Your task to perform on an android device: Show me popular games on the Play Store Image 0: 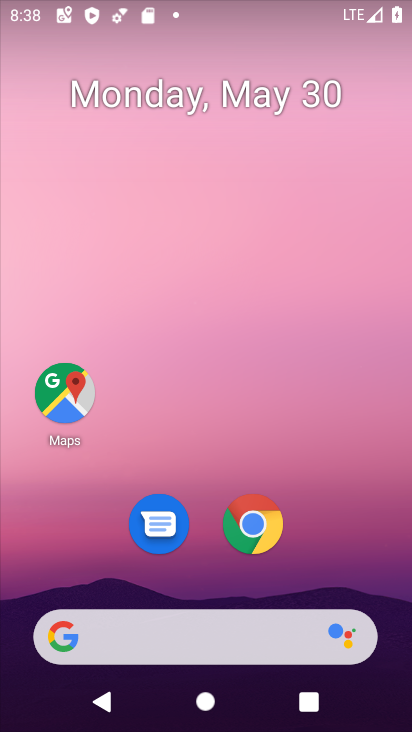
Step 0: drag from (230, 445) to (178, 1)
Your task to perform on an android device: Show me popular games on the Play Store Image 1: 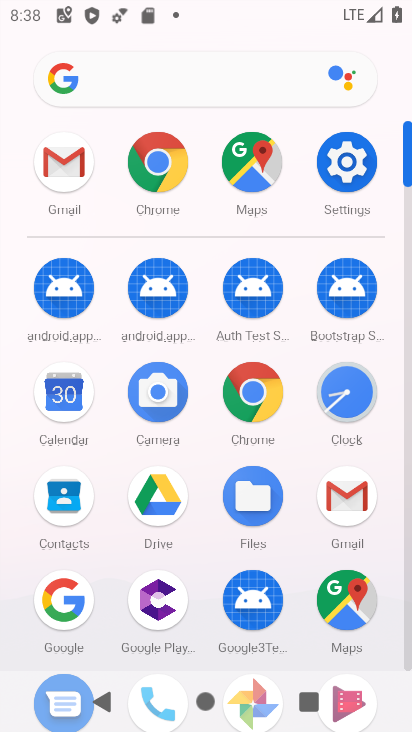
Step 1: drag from (113, 525) to (115, 144)
Your task to perform on an android device: Show me popular games on the Play Store Image 2: 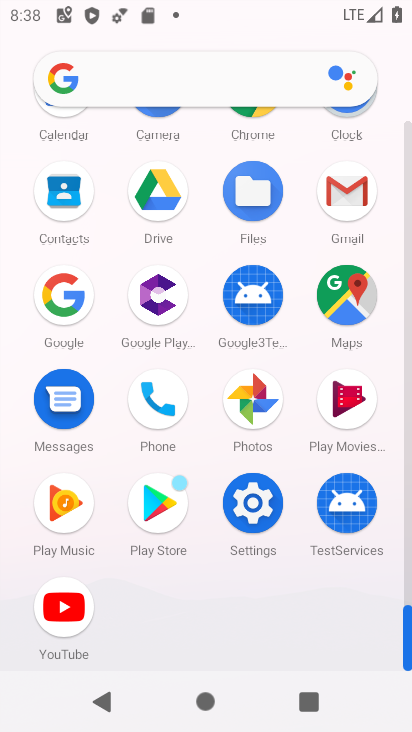
Step 2: click (159, 487)
Your task to perform on an android device: Show me popular games on the Play Store Image 3: 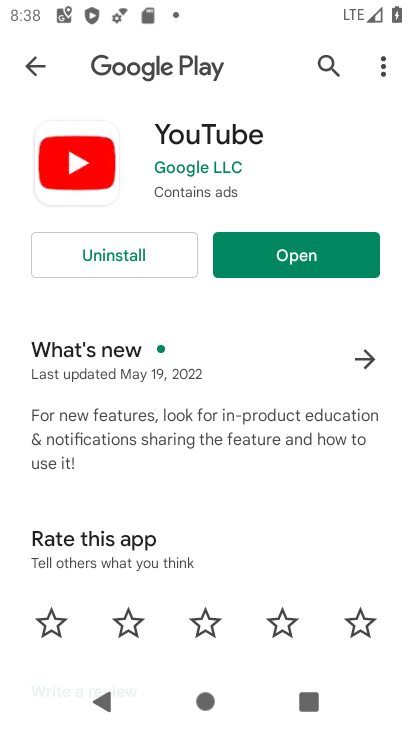
Step 3: click (41, 61)
Your task to perform on an android device: Show me popular games on the Play Store Image 4: 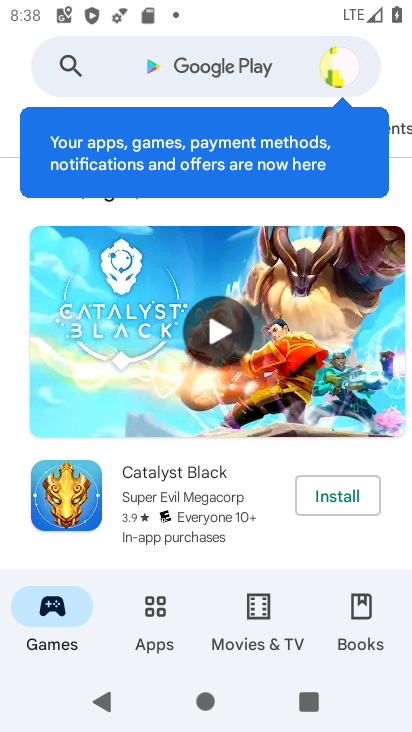
Step 4: click (58, 601)
Your task to perform on an android device: Show me popular games on the Play Store Image 5: 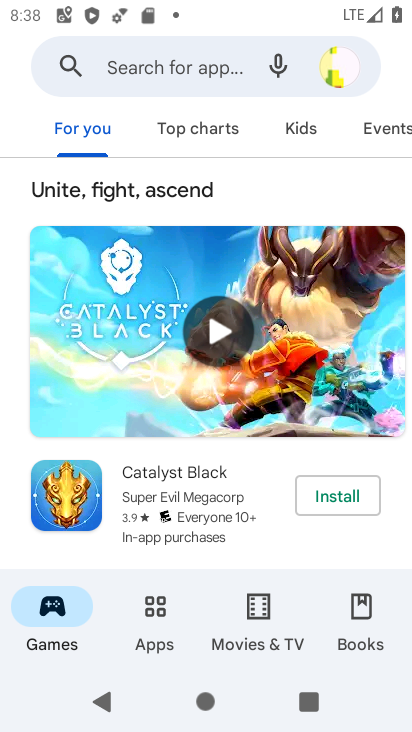
Step 5: drag from (208, 492) to (241, 61)
Your task to perform on an android device: Show me popular games on the Play Store Image 6: 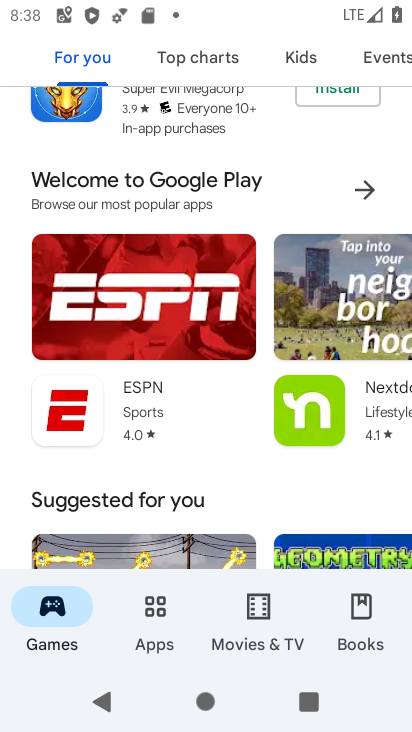
Step 6: drag from (174, 471) to (236, 22)
Your task to perform on an android device: Show me popular games on the Play Store Image 7: 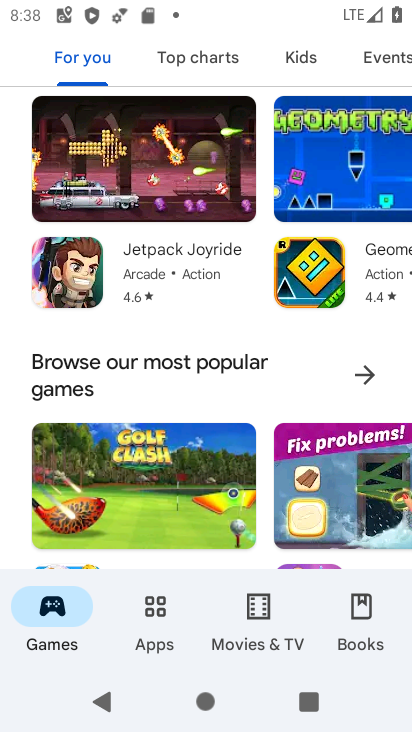
Step 7: click (370, 372)
Your task to perform on an android device: Show me popular games on the Play Store Image 8: 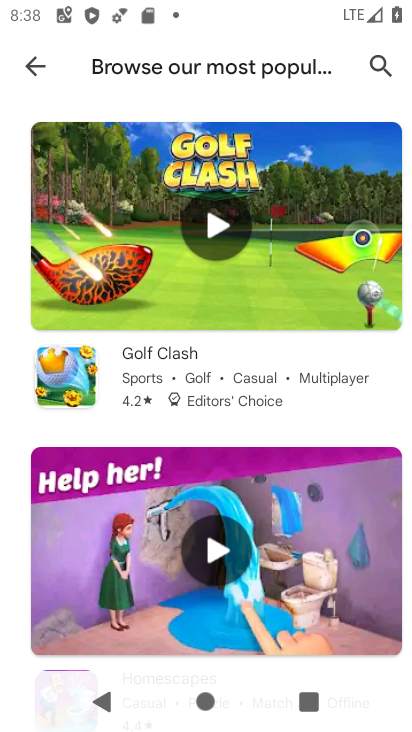
Step 8: task complete